Your task to perform on an android device: clear all cookies in the chrome app Image 0: 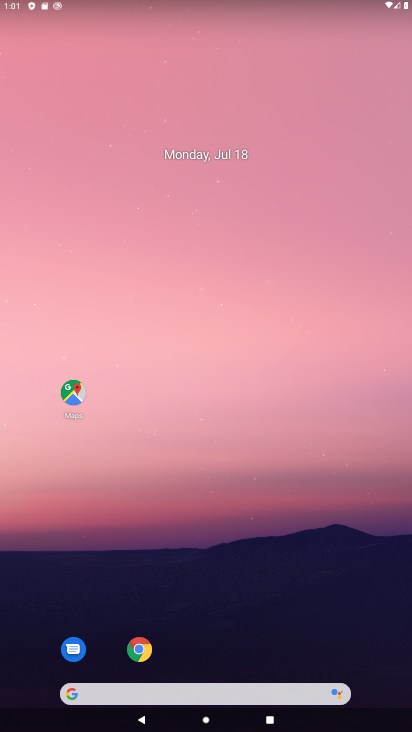
Step 0: click (138, 648)
Your task to perform on an android device: clear all cookies in the chrome app Image 1: 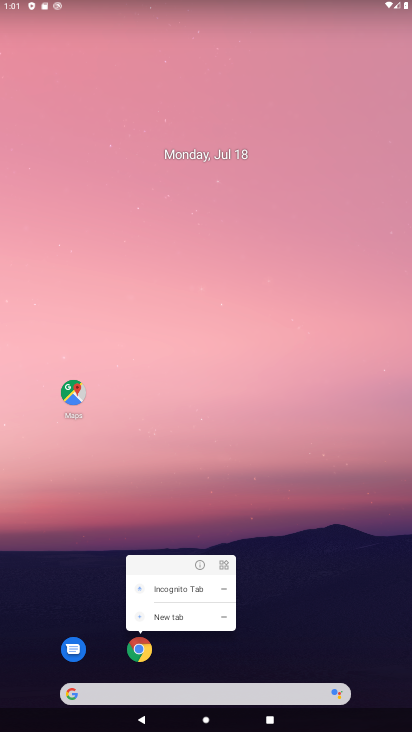
Step 1: click (135, 642)
Your task to perform on an android device: clear all cookies in the chrome app Image 2: 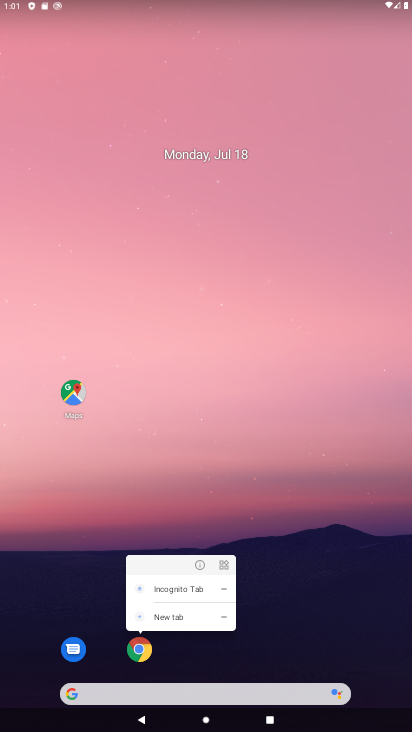
Step 2: click (139, 656)
Your task to perform on an android device: clear all cookies in the chrome app Image 3: 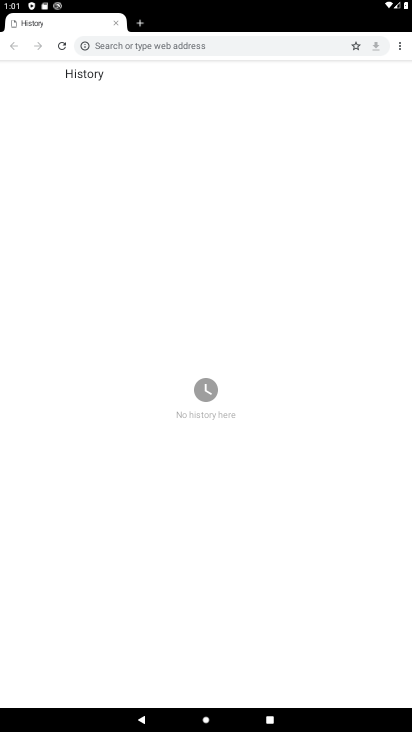
Step 3: click (398, 47)
Your task to perform on an android device: clear all cookies in the chrome app Image 4: 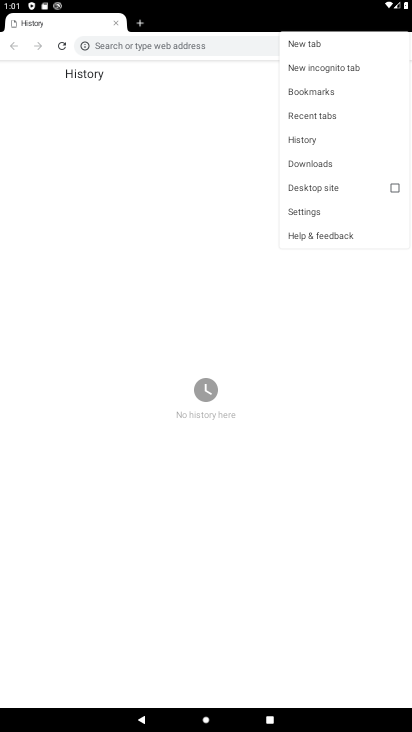
Step 4: click (310, 145)
Your task to perform on an android device: clear all cookies in the chrome app Image 5: 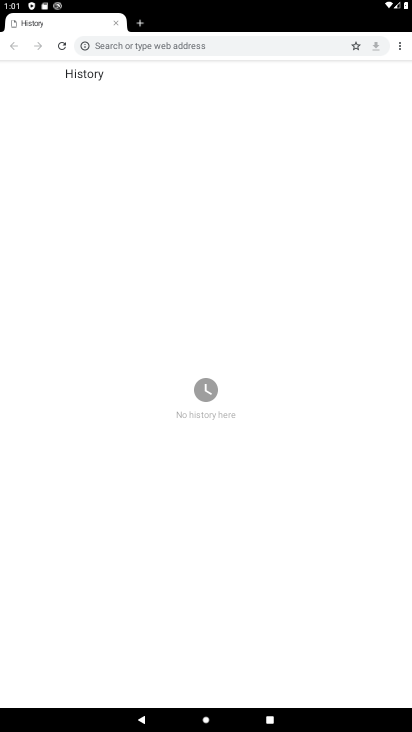
Step 5: drag from (400, 43) to (305, 210)
Your task to perform on an android device: clear all cookies in the chrome app Image 6: 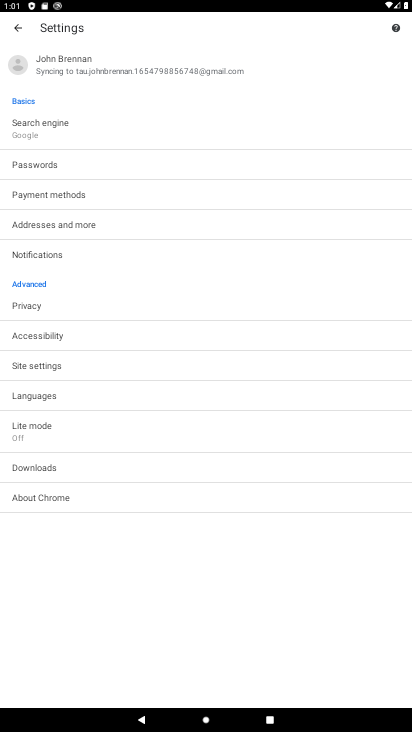
Step 6: click (29, 306)
Your task to perform on an android device: clear all cookies in the chrome app Image 7: 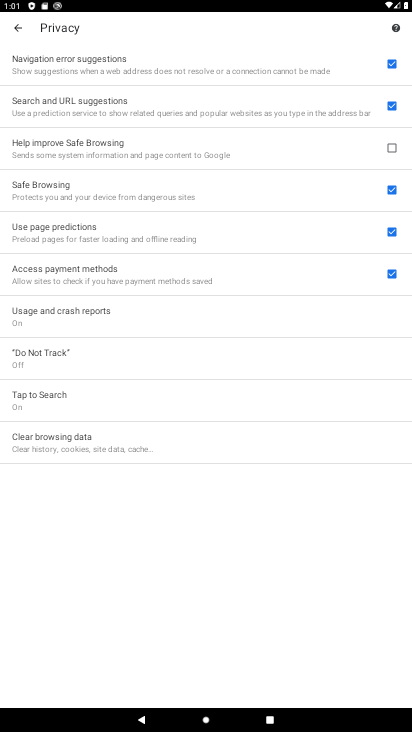
Step 7: click (81, 432)
Your task to perform on an android device: clear all cookies in the chrome app Image 8: 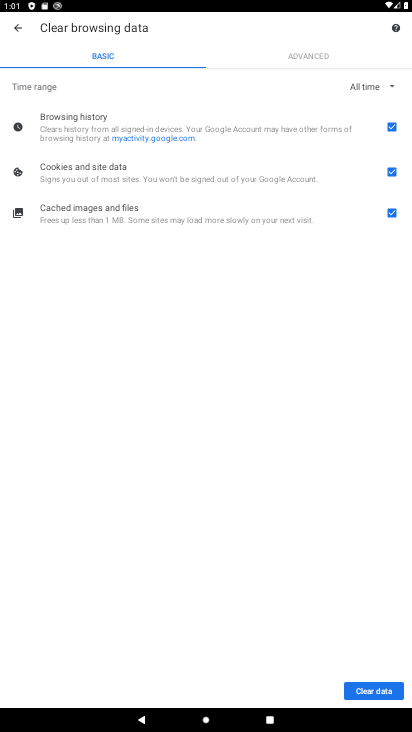
Step 8: click (374, 694)
Your task to perform on an android device: clear all cookies in the chrome app Image 9: 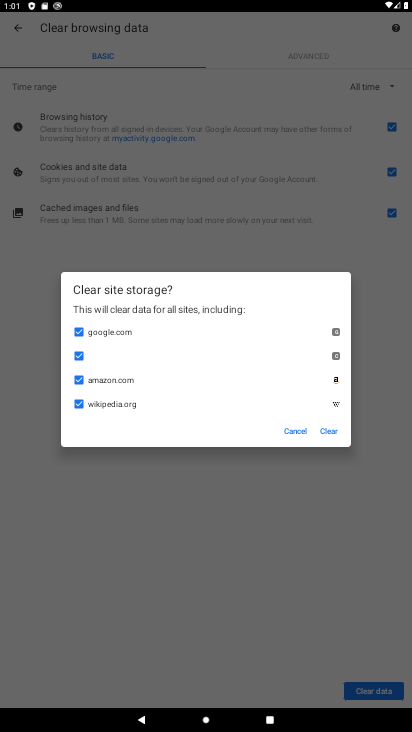
Step 9: click (332, 432)
Your task to perform on an android device: clear all cookies in the chrome app Image 10: 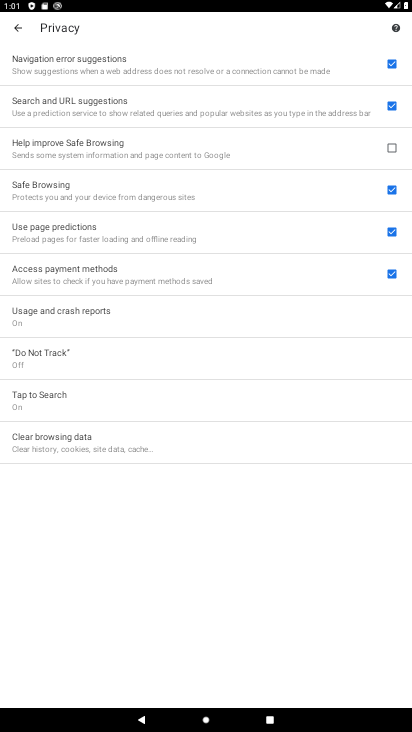
Step 10: task complete